Your task to perform on an android device: visit the assistant section in the google photos Image 0: 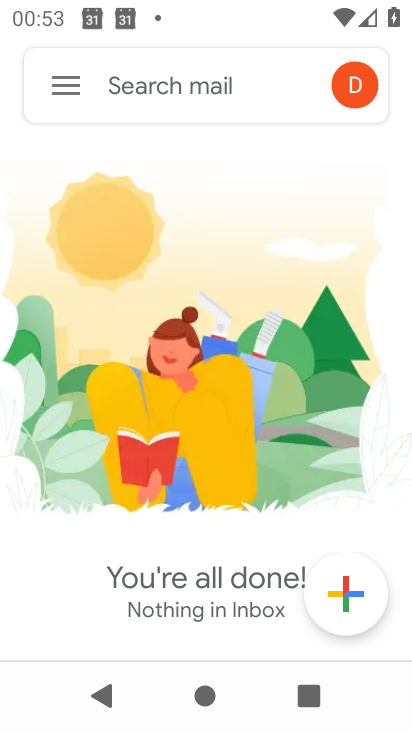
Step 0: press home button
Your task to perform on an android device: visit the assistant section in the google photos Image 1: 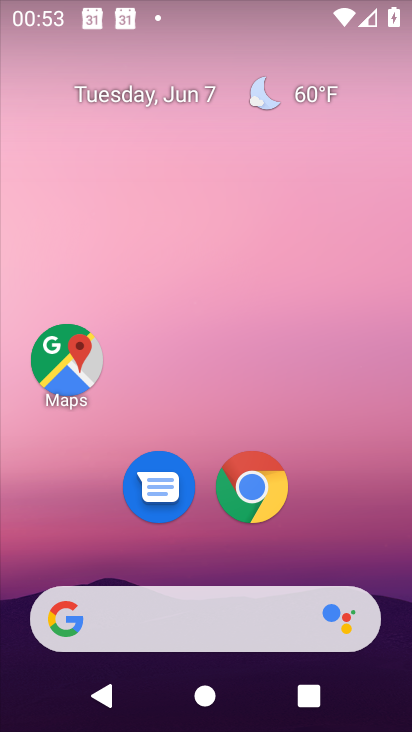
Step 1: drag from (352, 565) to (220, 166)
Your task to perform on an android device: visit the assistant section in the google photos Image 2: 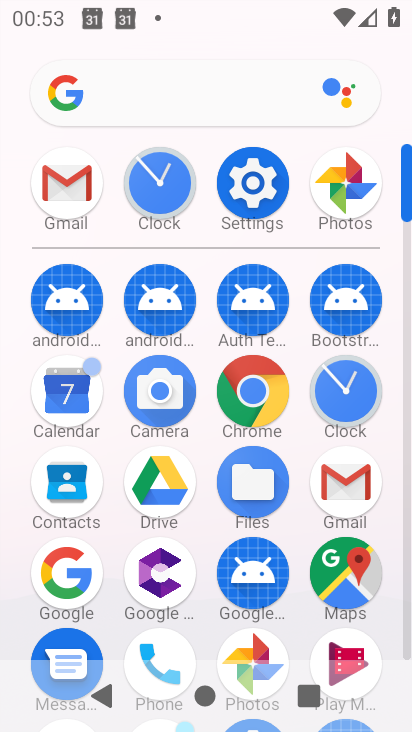
Step 2: click (337, 195)
Your task to perform on an android device: visit the assistant section in the google photos Image 3: 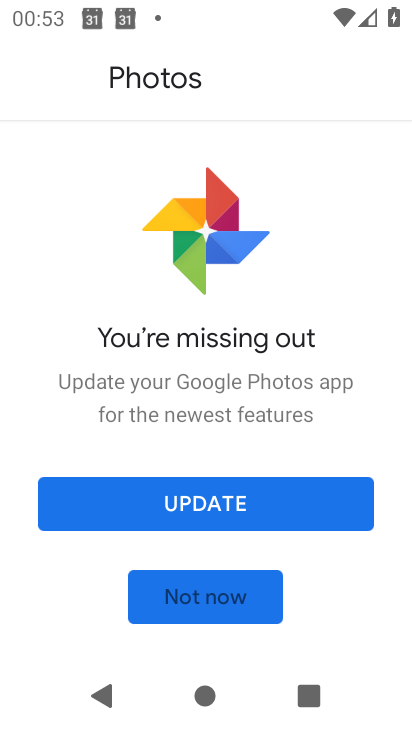
Step 3: click (291, 501)
Your task to perform on an android device: visit the assistant section in the google photos Image 4: 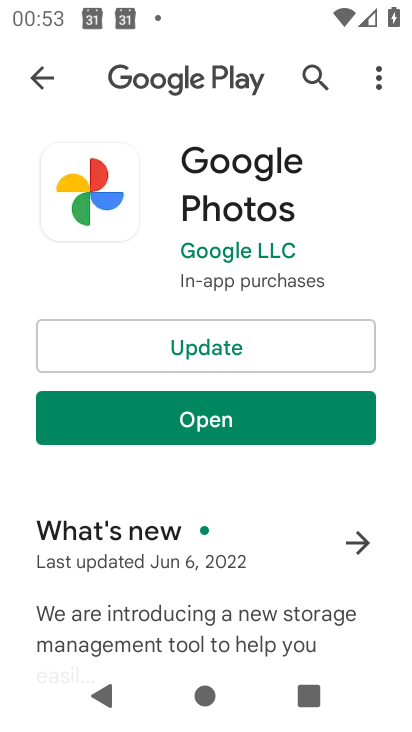
Step 4: click (229, 355)
Your task to perform on an android device: visit the assistant section in the google photos Image 5: 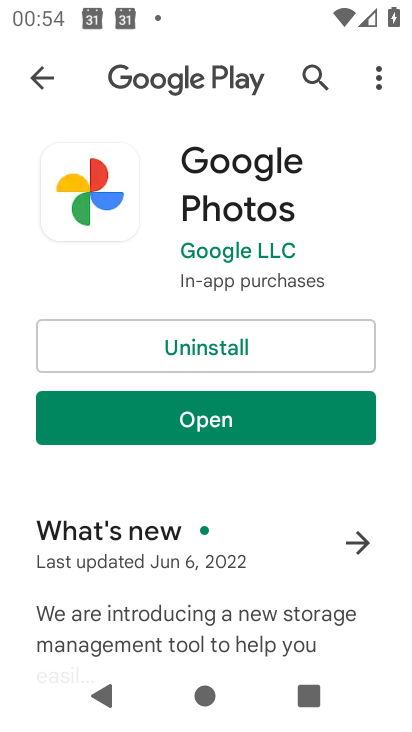
Step 5: click (202, 440)
Your task to perform on an android device: visit the assistant section in the google photos Image 6: 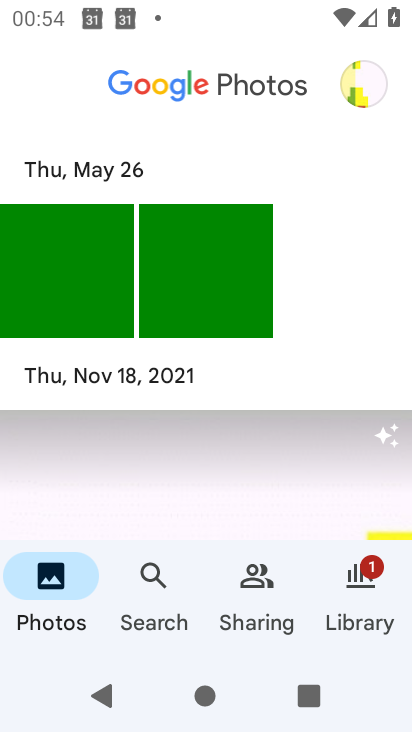
Step 6: click (356, 99)
Your task to perform on an android device: visit the assistant section in the google photos Image 7: 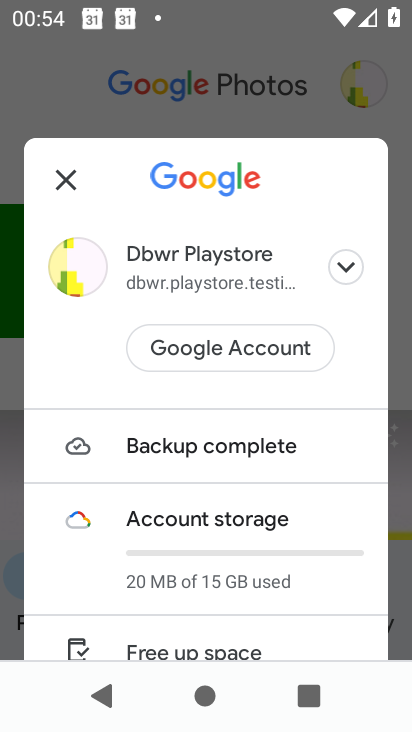
Step 7: click (73, 175)
Your task to perform on an android device: visit the assistant section in the google photos Image 8: 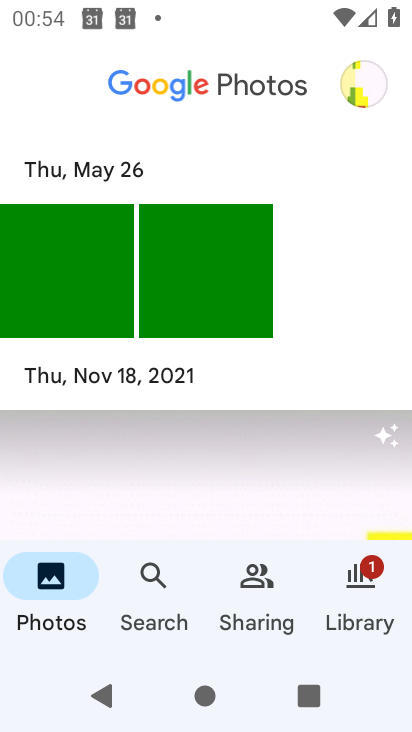
Step 8: click (333, 614)
Your task to perform on an android device: visit the assistant section in the google photos Image 9: 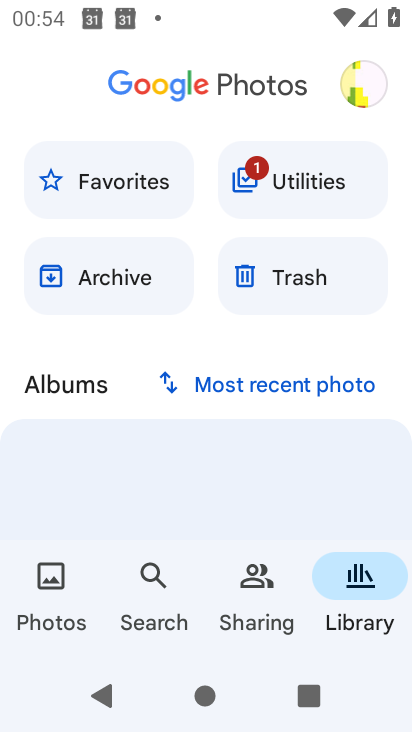
Step 9: click (268, 602)
Your task to perform on an android device: visit the assistant section in the google photos Image 10: 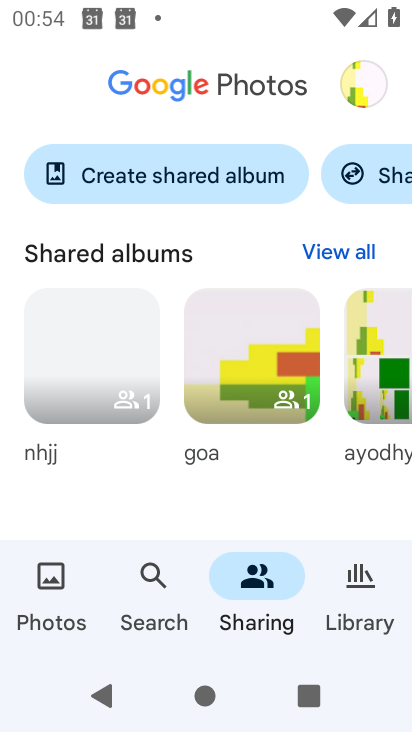
Step 10: click (161, 605)
Your task to perform on an android device: visit the assistant section in the google photos Image 11: 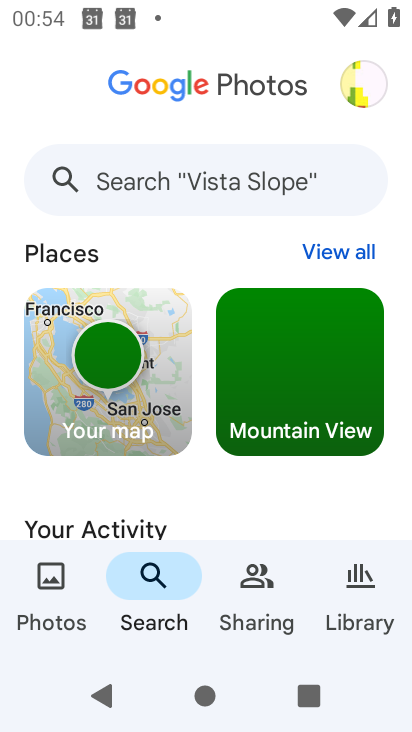
Step 11: task complete